Your task to perform on an android device: Go to wifi settings Image 0: 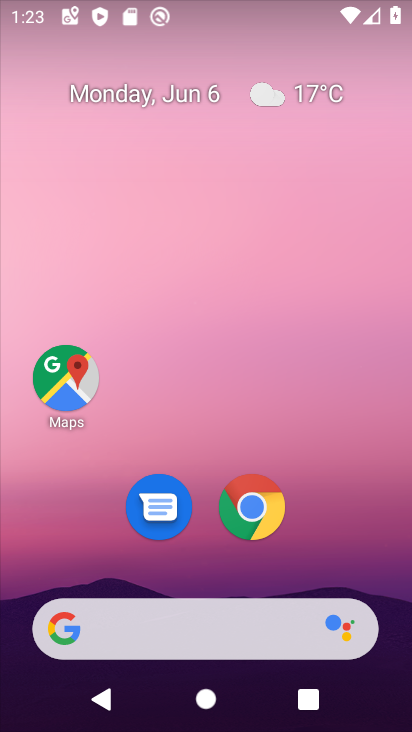
Step 0: drag from (382, 539) to (245, 18)
Your task to perform on an android device: Go to wifi settings Image 1: 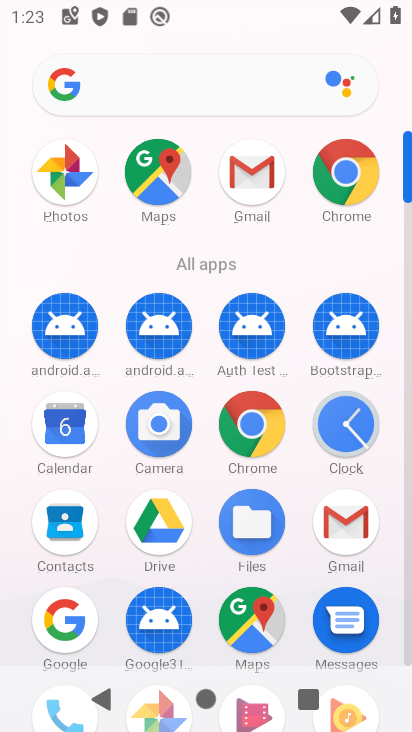
Step 1: drag from (11, 586) to (10, 229)
Your task to perform on an android device: Go to wifi settings Image 2: 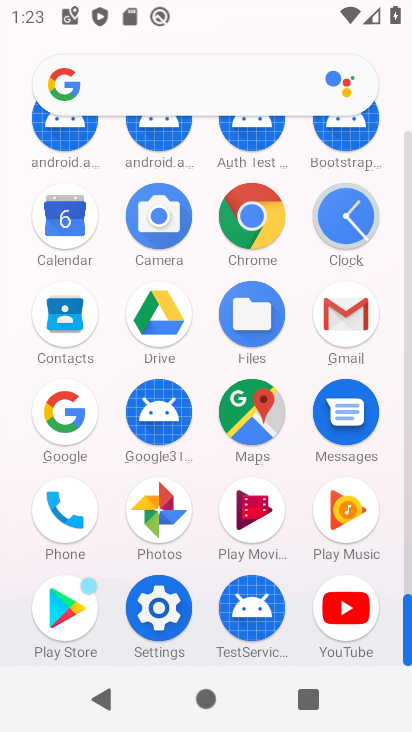
Step 2: click (158, 608)
Your task to perform on an android device: Go to wifi settings Image 3: 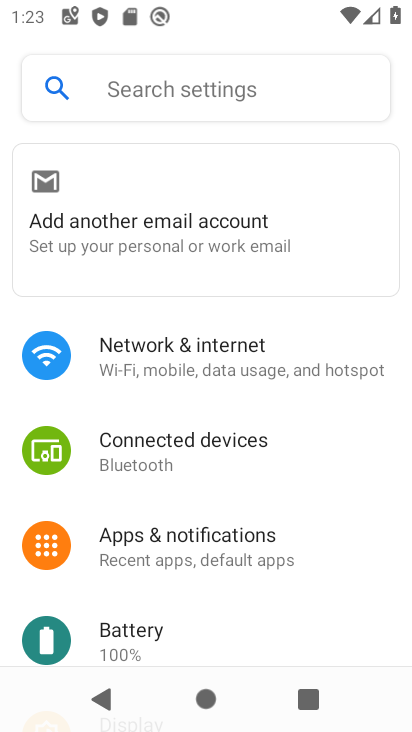
Step 3: click (206, 357)
Your task to perform on an android device: Go to wifi settings Image 4: 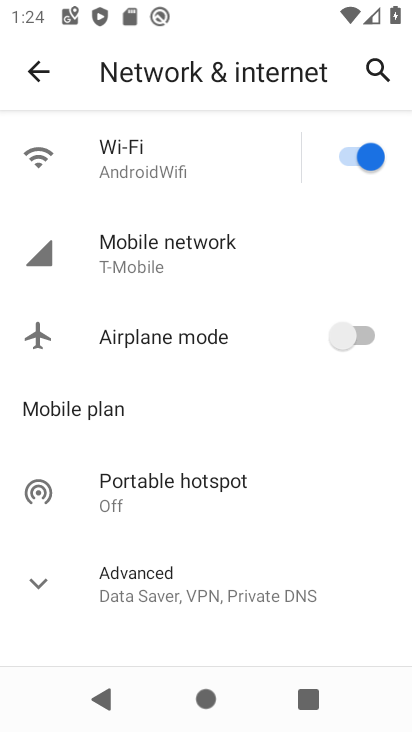
Step 4: click (125, 149)
Your task to perform on an android device: Go to wifi settings Image 5: 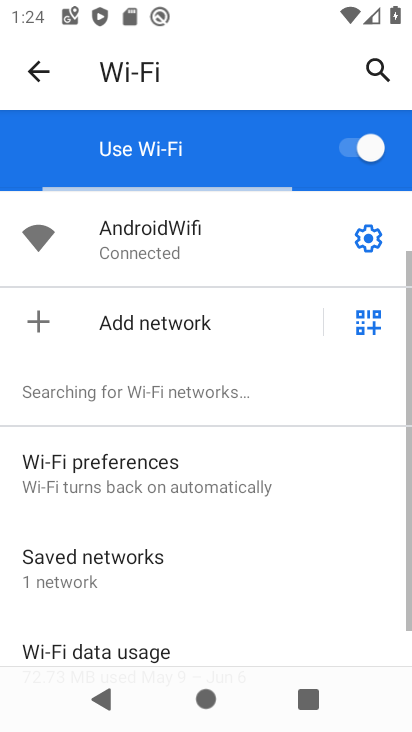
Step 5: task complete